Your task to perform on an android device: move a message to another label in the gmail app Image 0: 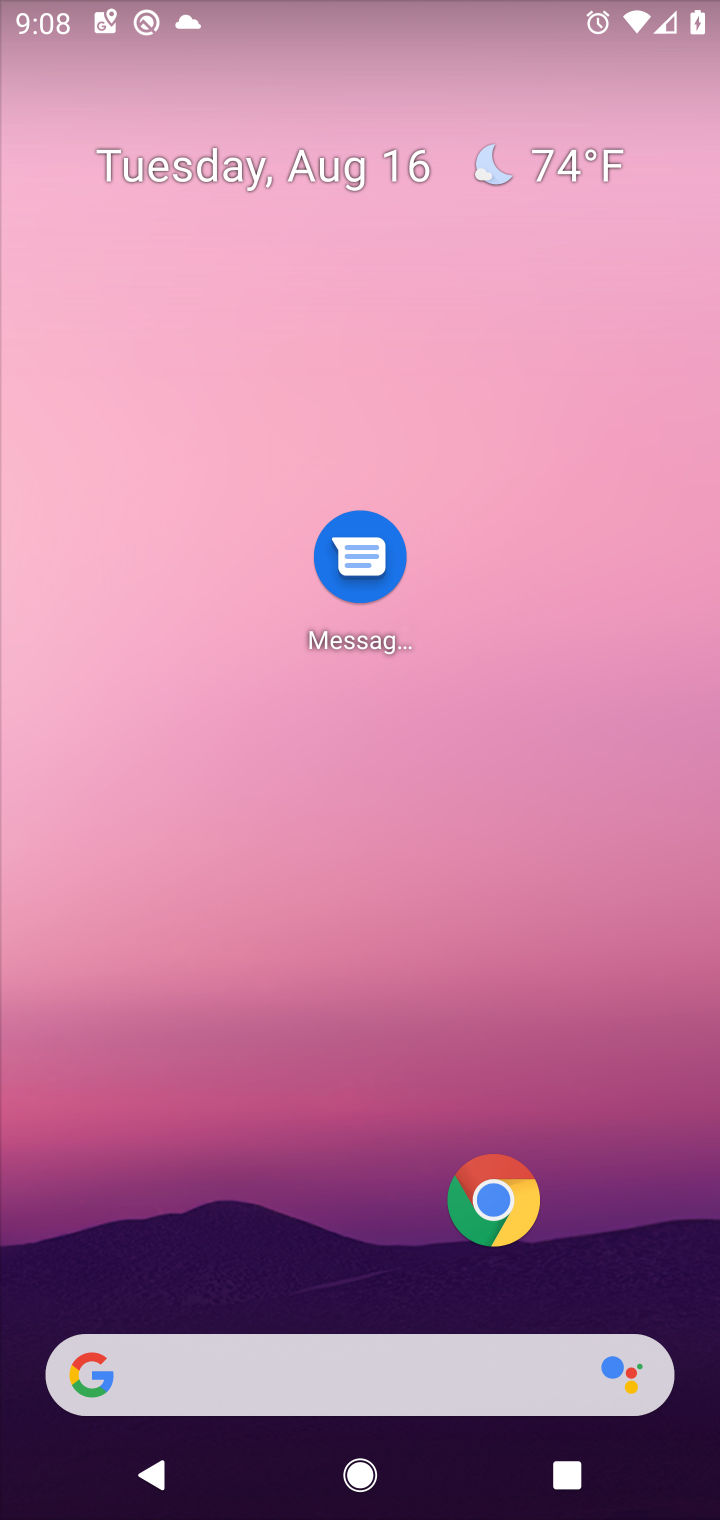
Step 0: drag from (35, 1430) to (146, 686)
Your task to perform on an android device: move a message to another label in the gmail app Image 1: 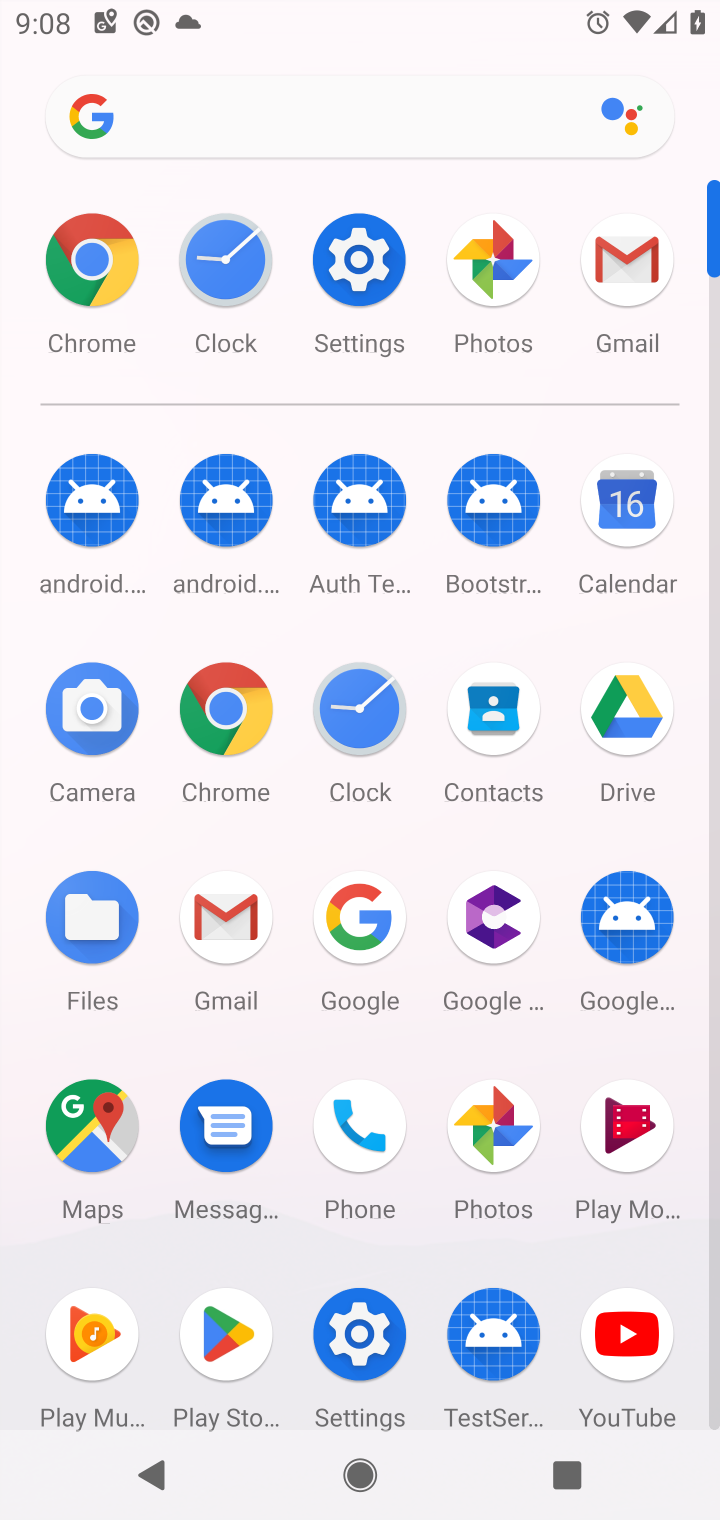
Step 1: click (242, 938)
Your task to perform on an android device: move a message to another label in the gmail app Image 2: 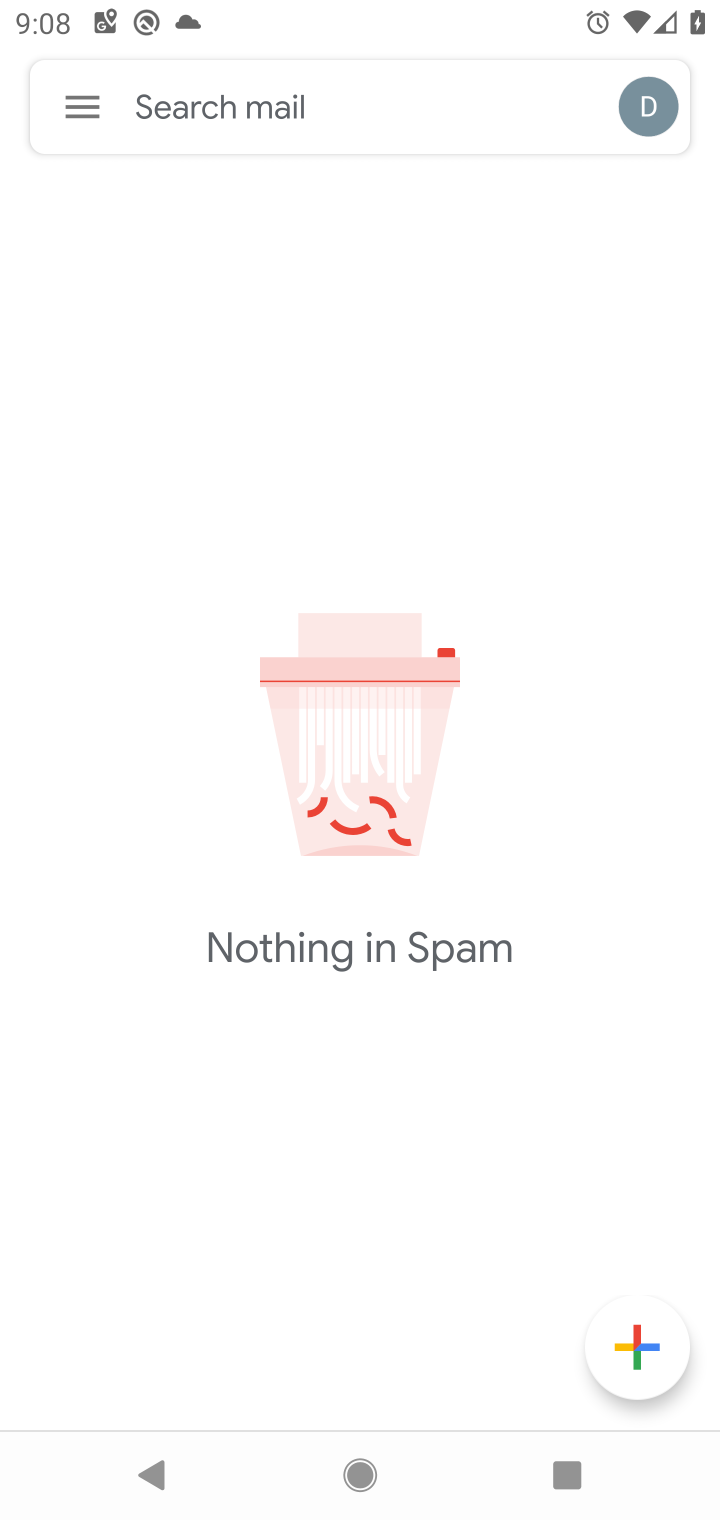
Step 2: click (85, 136)
Your task to perform on an android device: move a message to another label in the gmail app Image 3: 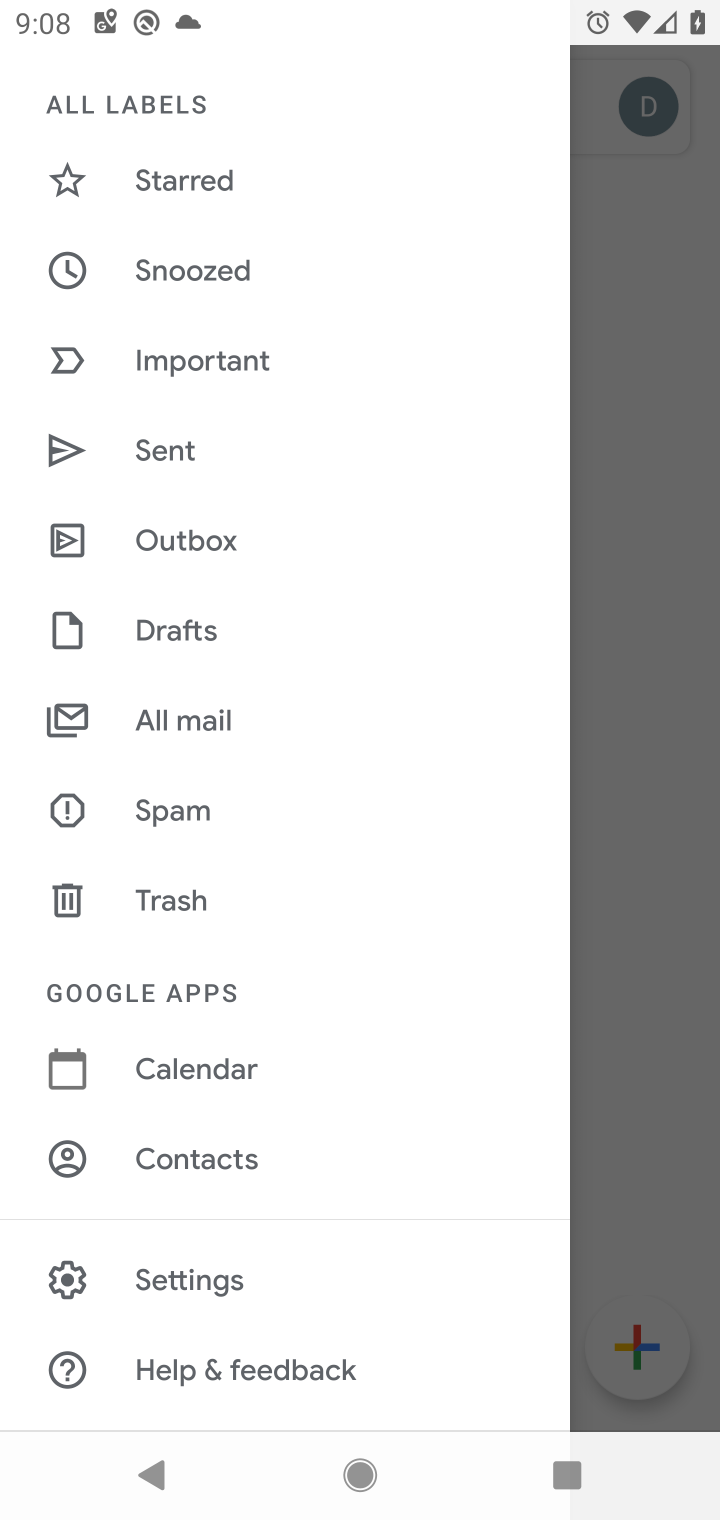
Step 3: drag from (419, 96) to (407, 845)
Your task to perform on an android device: move a message to another label in the gmail app Image 4: 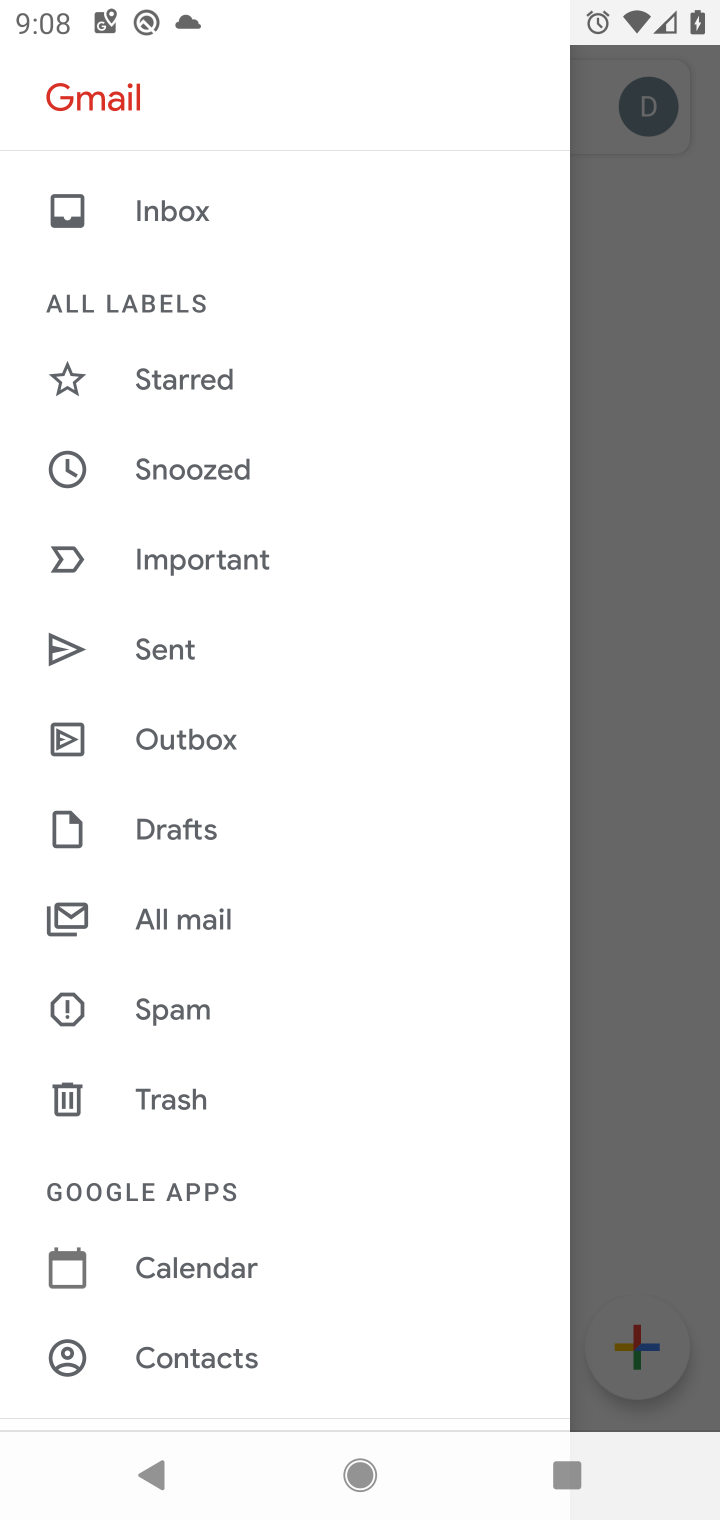
Step 4: click (665, 707)
Your task to perform on an android device: move a message to another label in the gmail app Image 5: 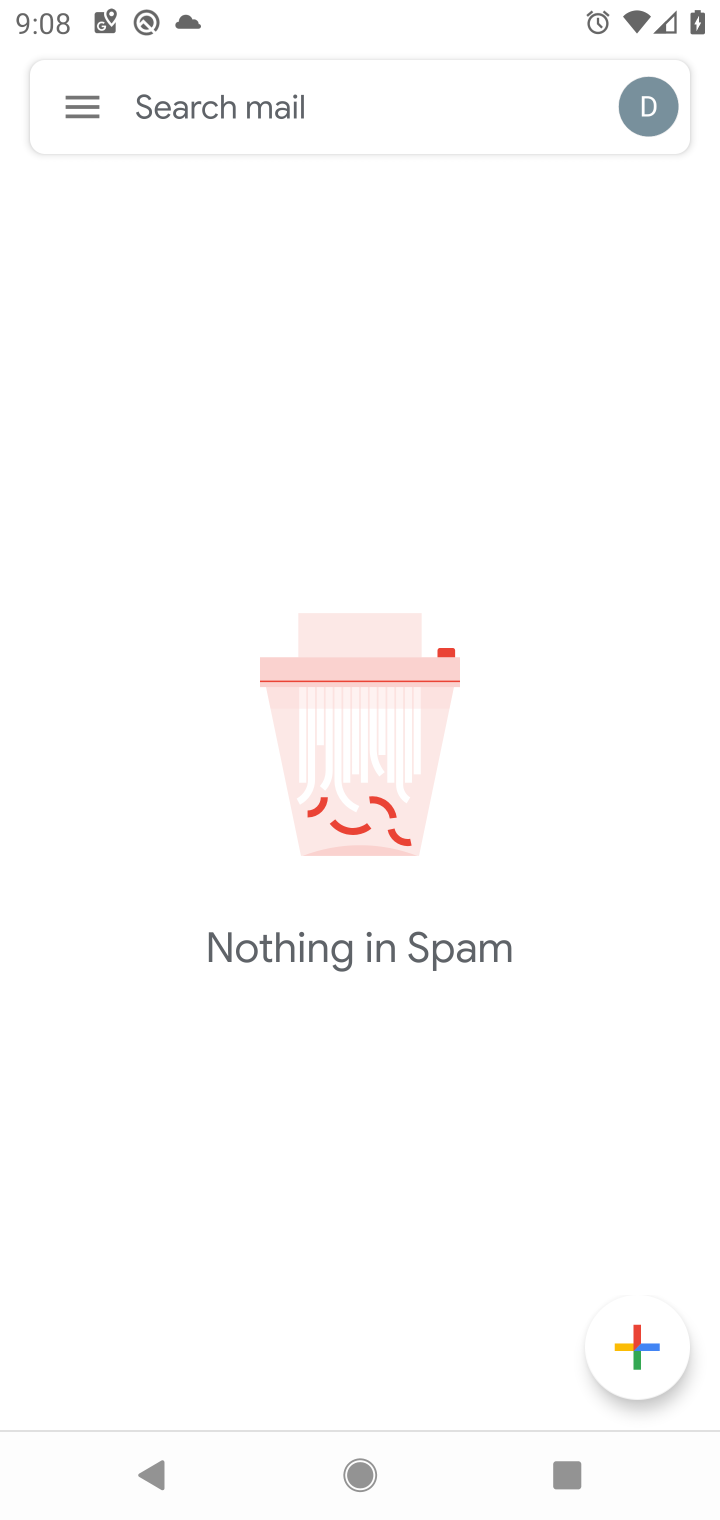
Step 5: task complete